Your task to perform on an android device: star an email in the gmail app Image 0: 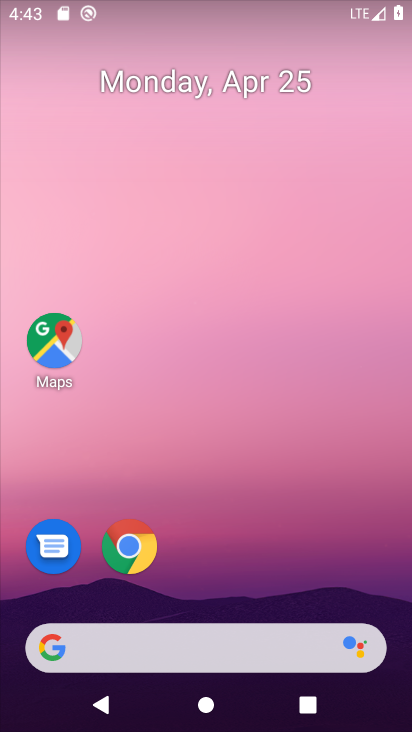
Step 0: drag from (270, 581) to (382, 13)
Your task to perform on an android device: star an email in the gmail app Image 1: 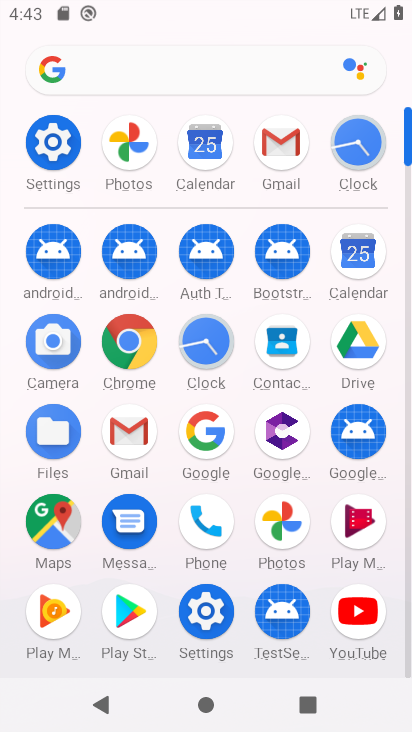
Step 1: click (280, 127)
Your task to perform on an android device: star an email in the gmail app Image 2: 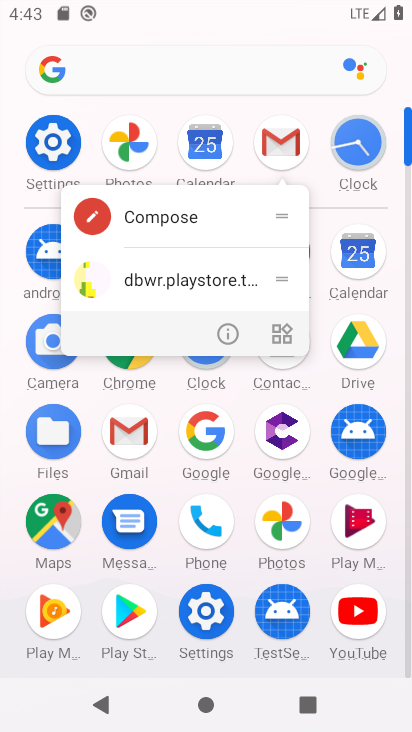
Step 2: click (284, 127)
Your task to perform on an android device: star an email in the gmail app Image 3: 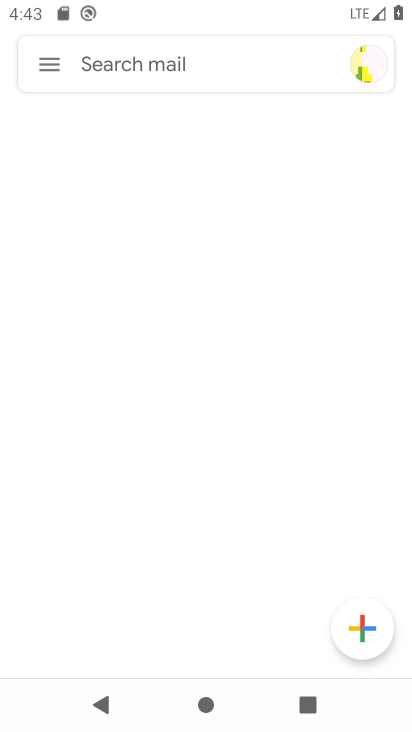
Step 3: click (53, 58)
Your task to perform on an android device: star an email in the gmail app Image 4: 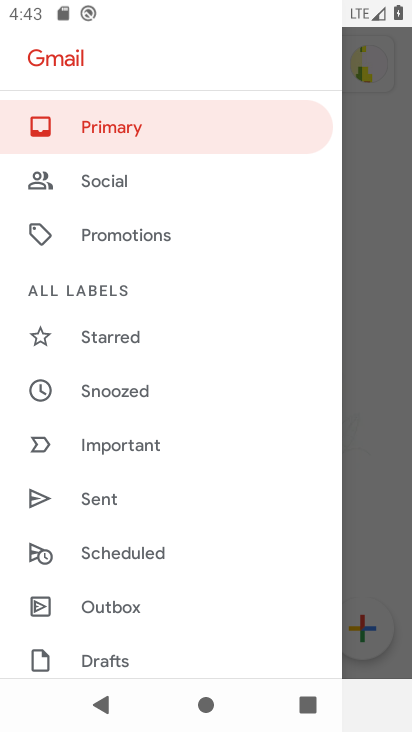
Step 4: drag from (158, 629) to (218, 276)
Your task to perform on an android device: star an email in the gmail app Image 5: 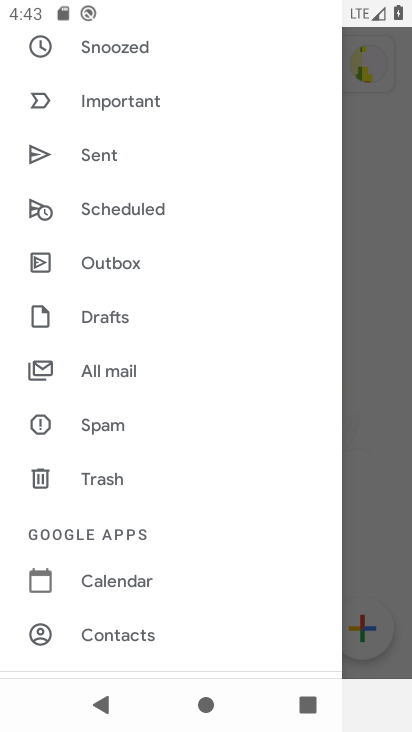
Step 5: click (110, 363)
Your task to perform on an android device: star an email in the gmail app Image 6: 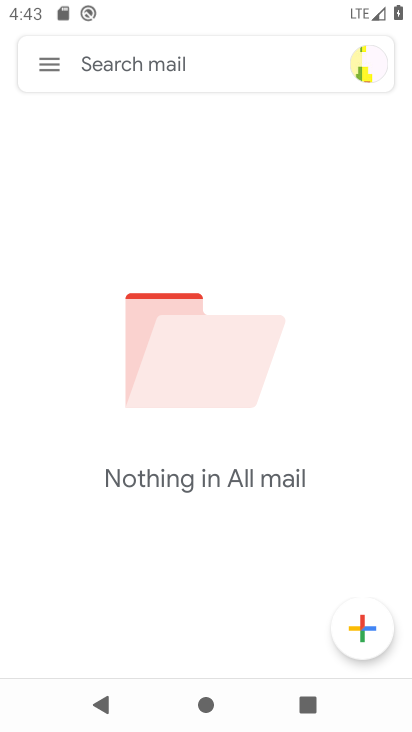
Step 6: task complete